Your task to perform on an android device: Toggle the flashlight Image 0: 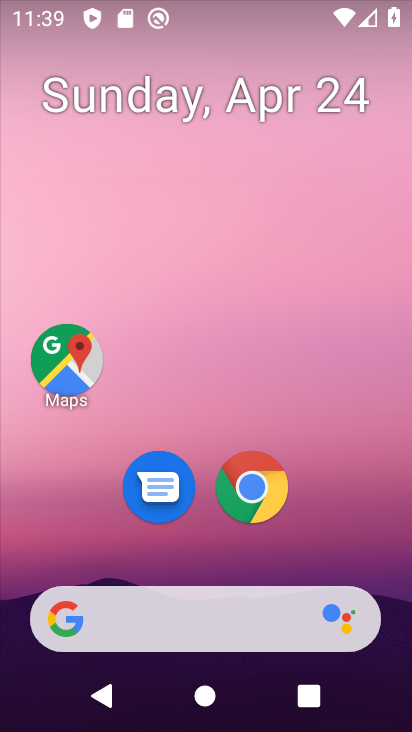
Step 0: drag from (401, 609) to (280, 125)
Your task to perform on an android device: Toggle the flashlight Image 1: 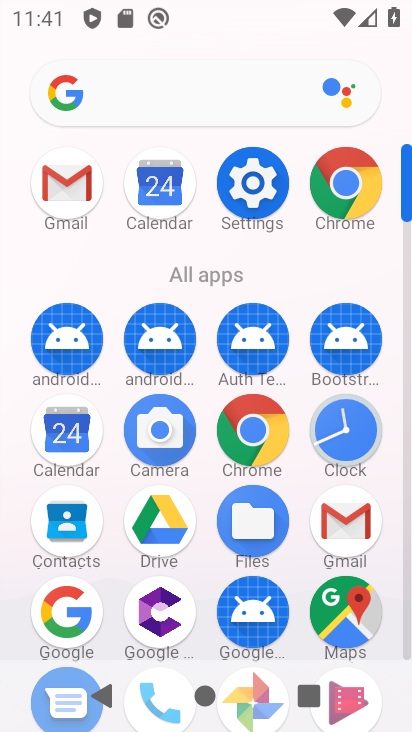
Step 1: task complete